Your task to perform on an android device: Open maps Image 0: 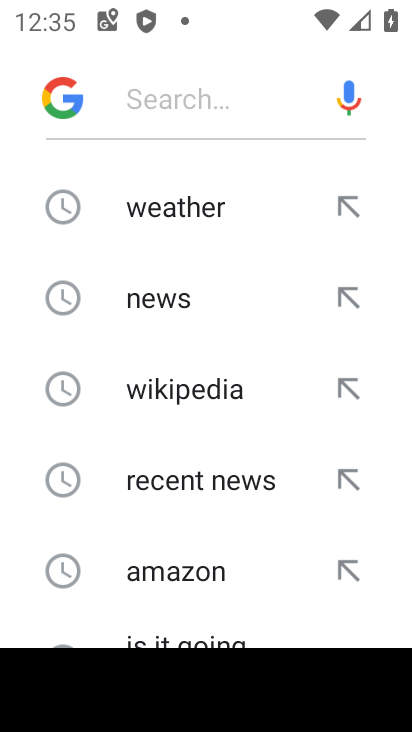
Step 0: press home button
Your task to perform on an android device: Open maps Image 1: 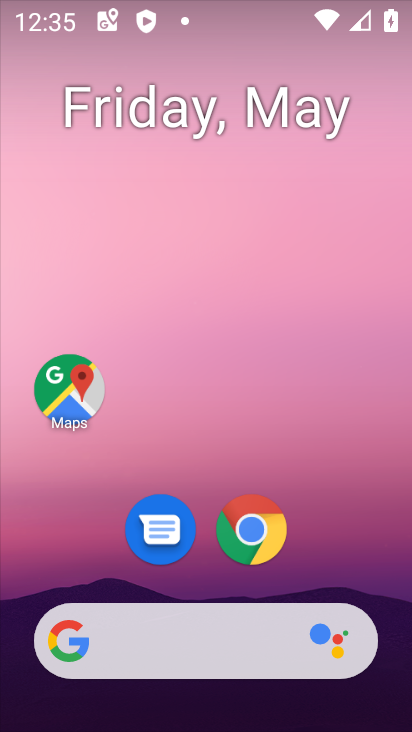
Step 1: click (70, 413)
Your task to perform on an android device: Open maps Image 2: 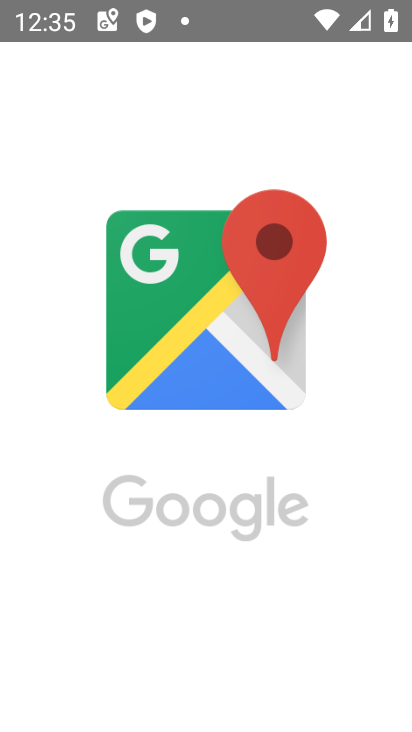
Step 2: task complete